Your task to perform on an android device: check out phone information Image 0: 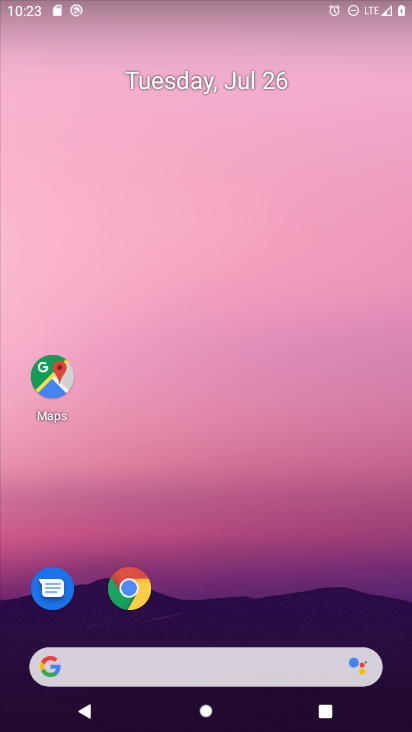
Step 0: drag from (178, 647) to (223, 263)
Your task to perform on an android device: check out phone information Image 1: 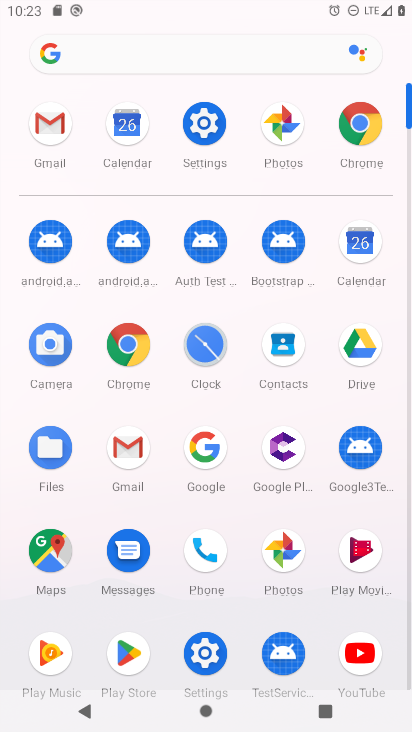
Step 1: click (219, 138)
Your task to perform on an android device: check out phone information Image 2: 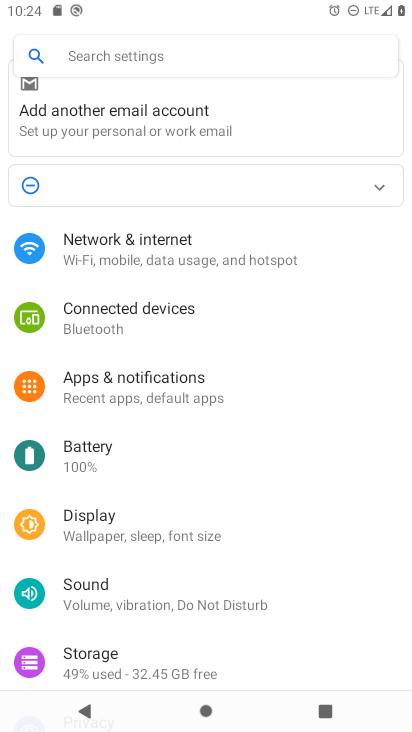
Step 2: drag from (193, 581) to (281, 3)
Your task to perform on an android device: check out phone information Image 3: 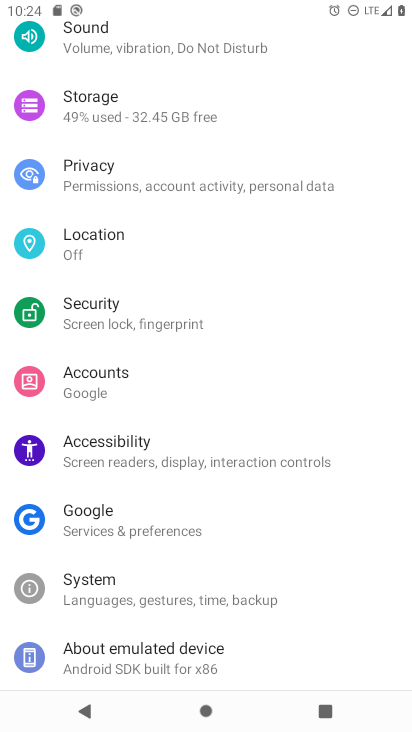
Step 3: drag from (166, 580) to (227, 186)
Your task to perform on an android device: check out phone information Image 4: 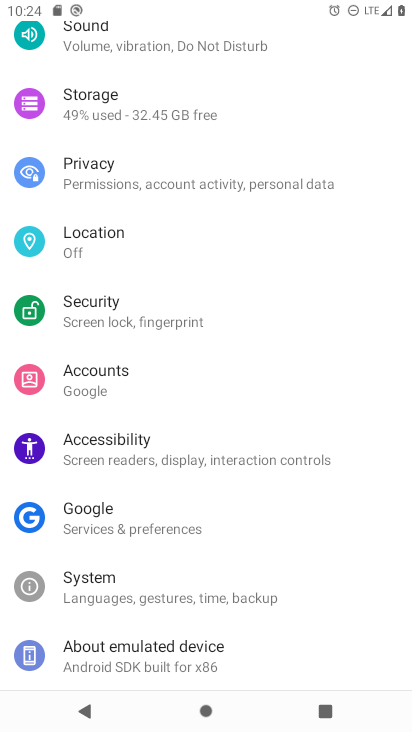
Step 4: click (186, 662)
Your task to perform on an android device: check out phone information Image 5: 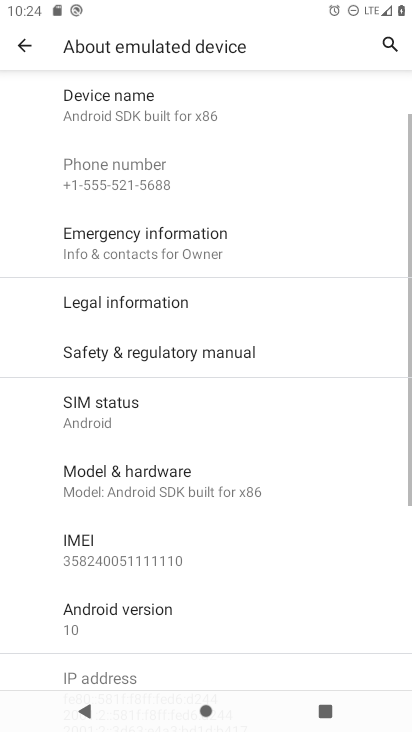
Step 5: task complete